Your task to perform on an android device: When is my next appointment? Image 0: 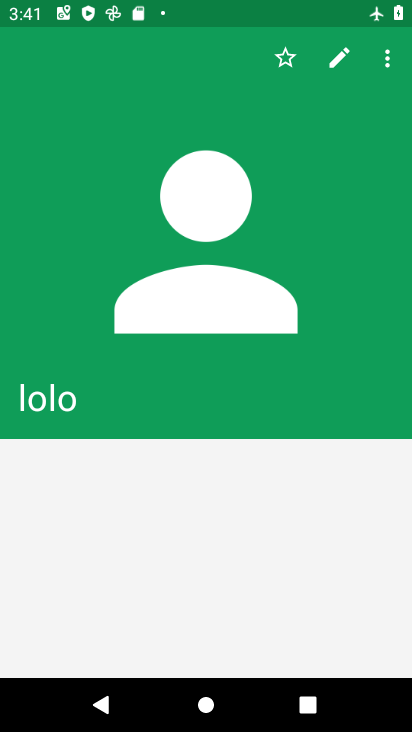
Step 0: press home button
Your task to perform on an android device: When is my next appointment? Image 1: 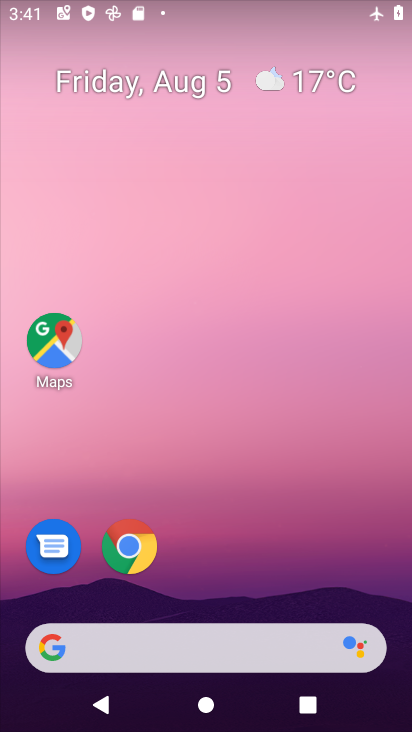
Step 1: drag from (361, 561) to (355, 126)
Your task to perform on an android device: When is my next appointment? Image 2: 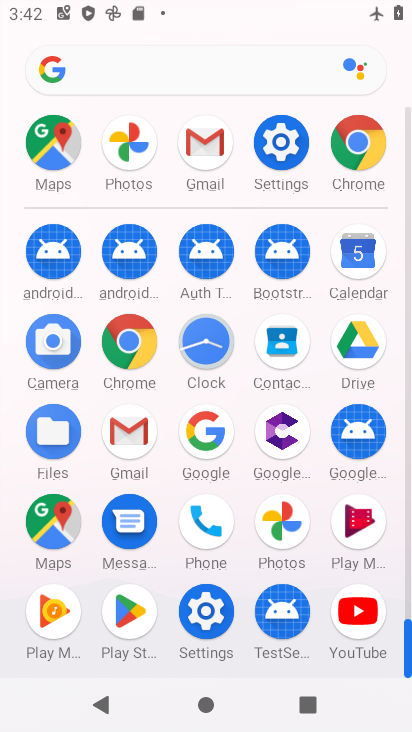
Step 2: click (357, 259)
Your task to perform on an android device: When is my next appointment? Image 3: 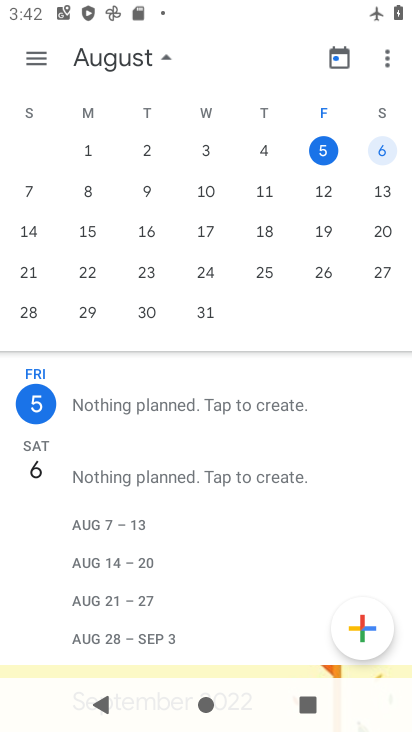
Step 3: task complete